Your task to perform on an android device: open chrome and create a bookmark for the current page Image 0: 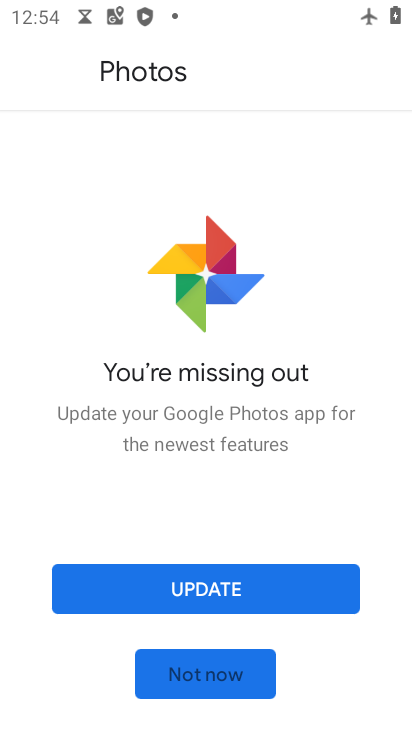
Step 0: click (203, 665)
Your task to perform on an android device: open chrome and create a bookmark for the current page Image 1: 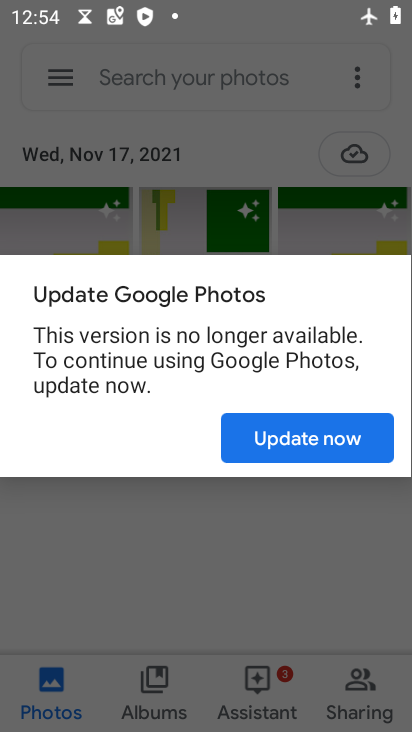
Step 1: press home button
Your task to perform on an android device: open chrome and create a bookmark for the current page Image 2: 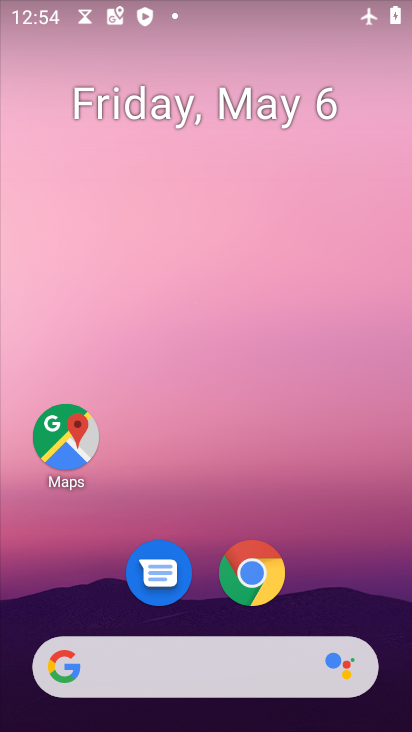
Step 2: drag from (298, 564) to (333, 213)
Your task to perform on an android device: open chrome and create a bookmark for the current page Image 3: 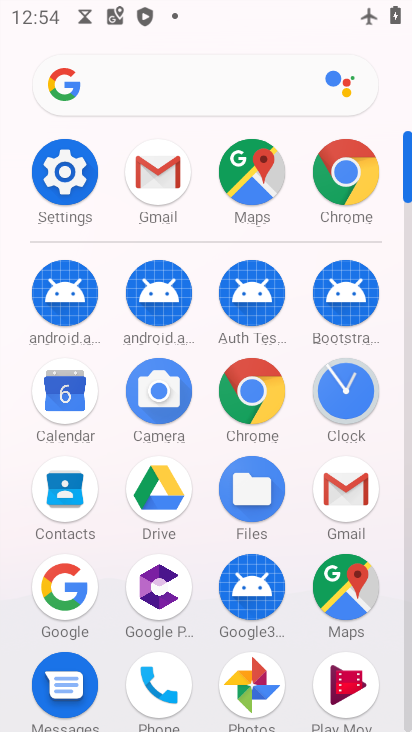
Step 3: click (353, 167)
Your task to perform on an android device: open chrome and create a bookmark for the current page Image 4: 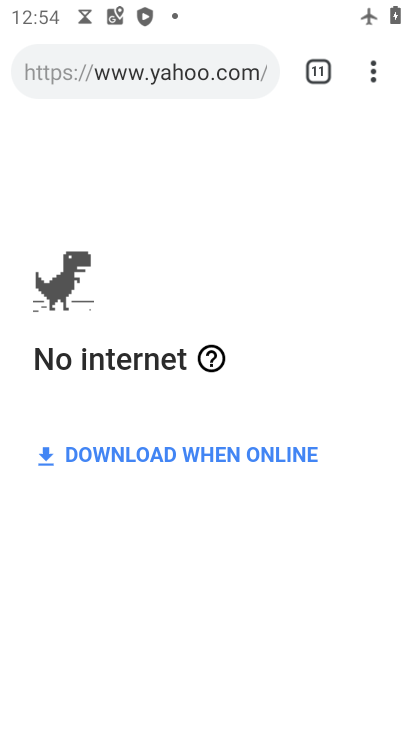
Step 4: click (356, 66)
Your task to perform on an android device: open chrome and create a bookmark for the current page Image 5: 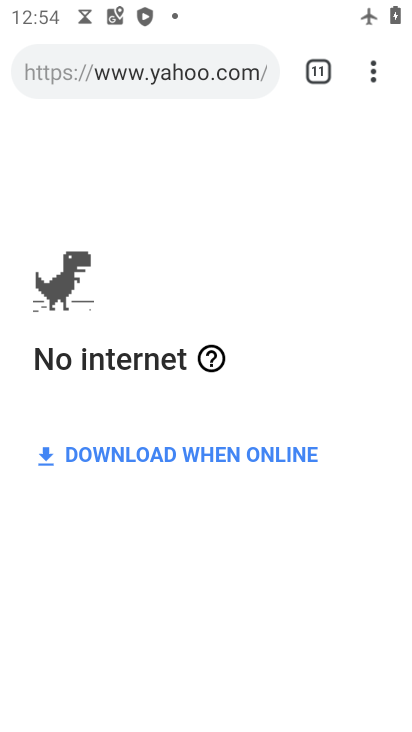
Step 5: click (355, 75)
Your task to perform on an android device: open chrome and create a bookmark for the current page Image 6: 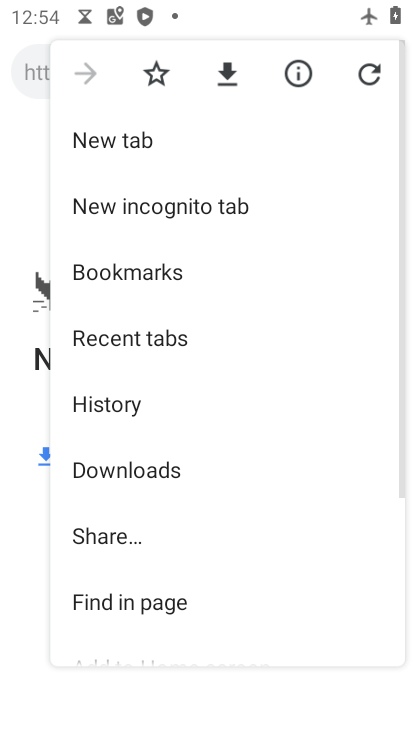
Step 6: click (155, 63)
Your task to perform on an android device: open chrome and create a bookmark for the current page Image 7: 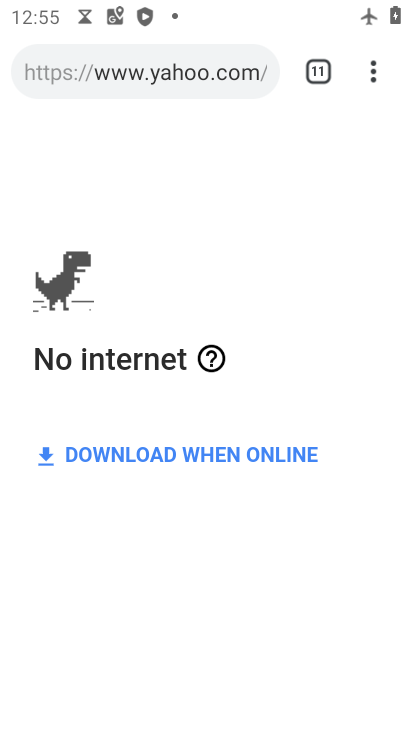
Step 7: task complete